Your task to perform on an android device: turn off improve location accuracy Image 0: 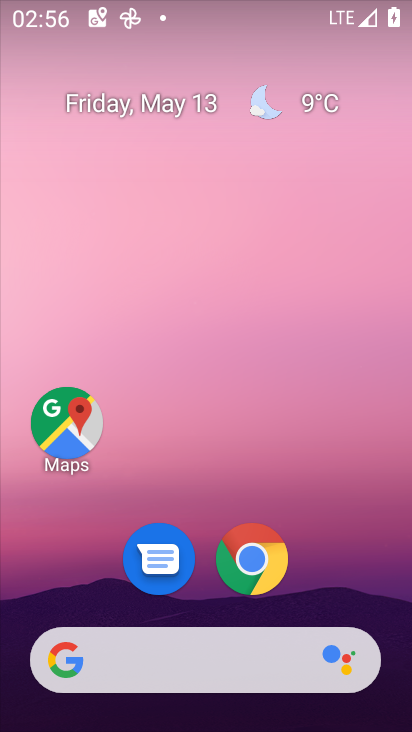
Step 0: click (384, 189)
Your task to perform on an android device: turn off improve location accuracy Image 1: 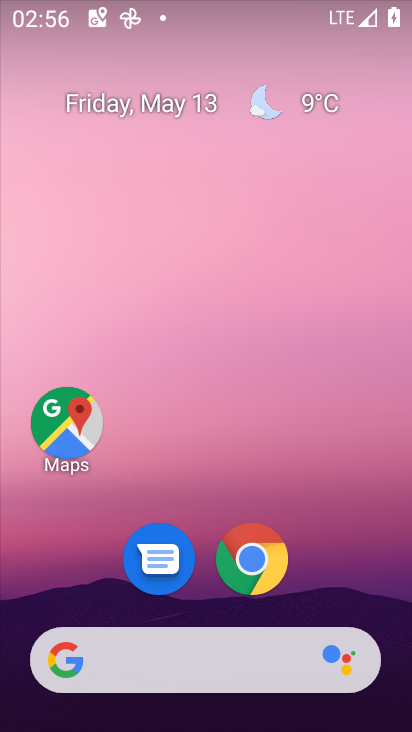
Step 1: drag from (392, 608) to (364, 99)
Your task to perform on an android device: turn off improve location accuracy Image 2: 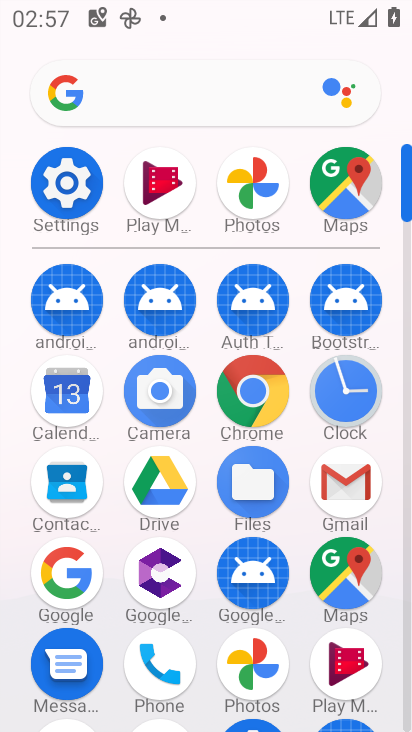
Step 2: click (85, 201)
Your task to perform on an android device: turn off improve location accuracy Image 3: 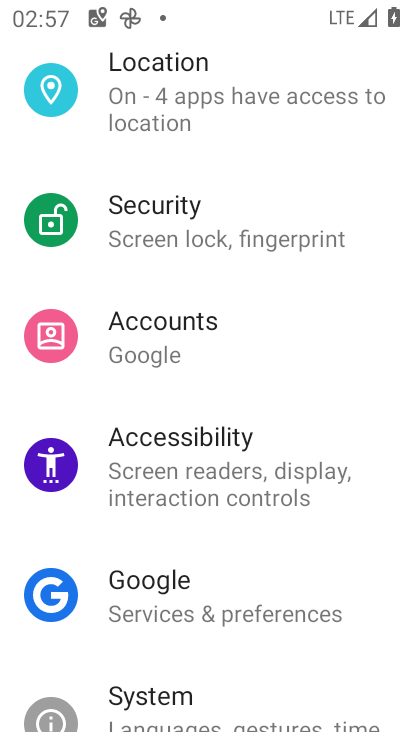
Step 3: click (189, 81)
Your task to perform on an android device: turn off improve location accuracy Image 4: 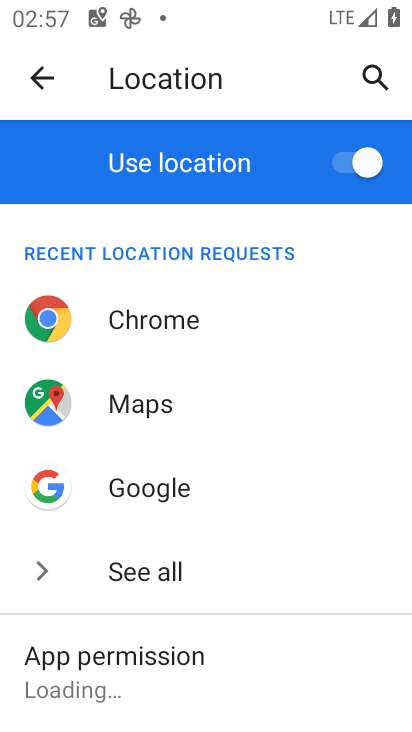
Step 4: drag from (180, 698) to (208, 466)
Your task to perform on an android device: turn off improve location accuracy Image 5: 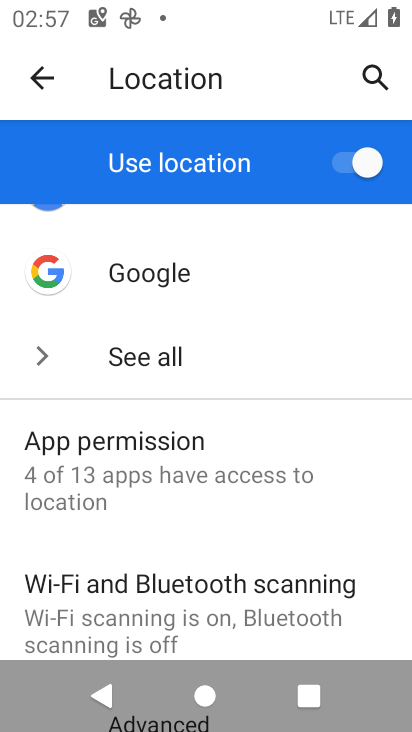
Step 5: click (145, 362)
Your task to perform on an android device: turn off improve location accuracy Image 6: 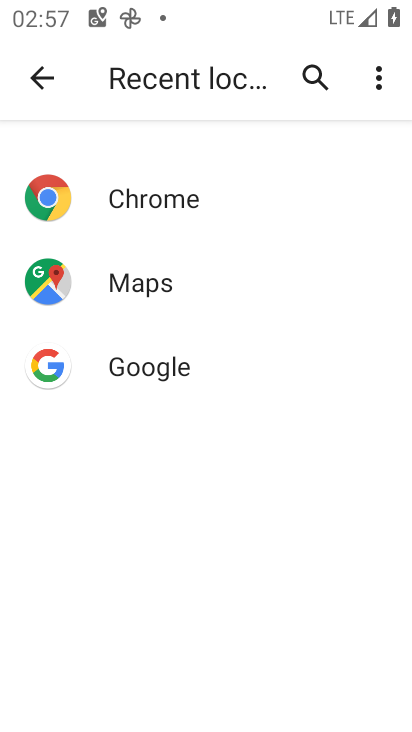
Step 6: click (35, 75)
Your task to perform on an android device: turn off improve location accuracy Image 7: 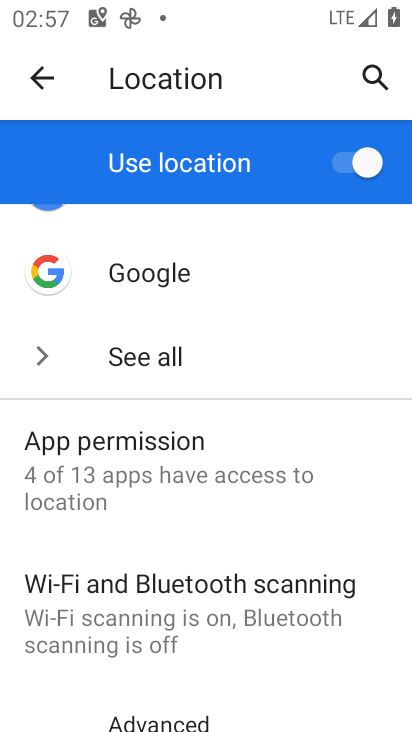
Step 7: drag from (245, 646) to (280, 360)
Your task to perform on an android device: turn off improve location accuracy Image 8: 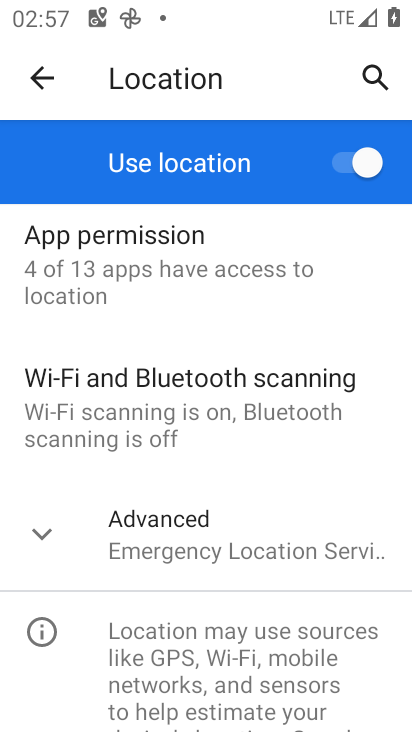
Step 8: drag from (274, 711) to (273, 499)
Your task to perform on an android device: turn off improve location accuracy Image 9: 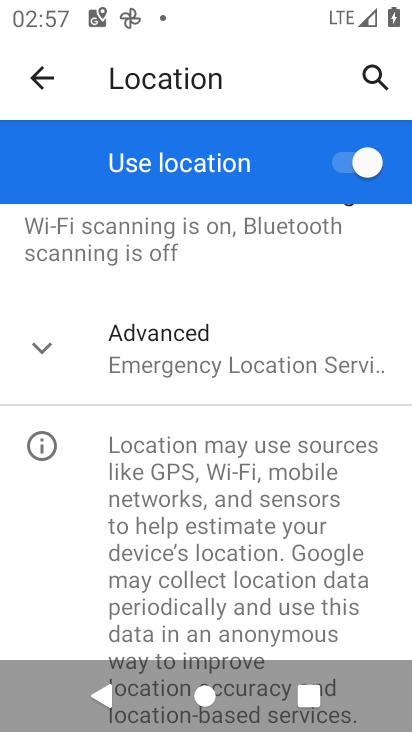
Step 9: drag from (286, 596) to (304, 340)
Your task to perform on an android device: turn off improve location accuracy Image 10: 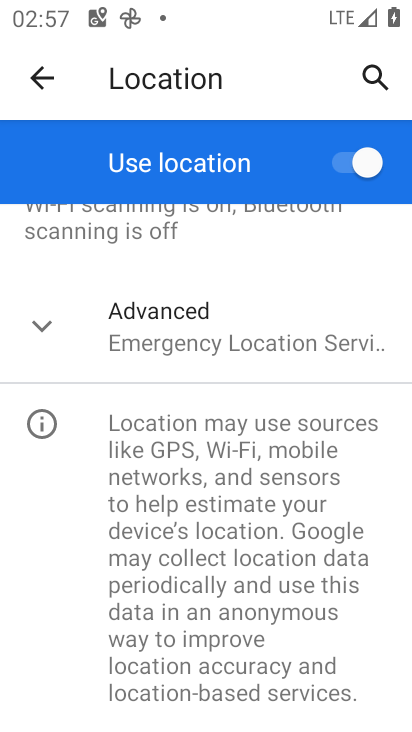
Step 10: click (32, 323)
Your task to perform on an android device: turn off improve location accuracy Image 11: 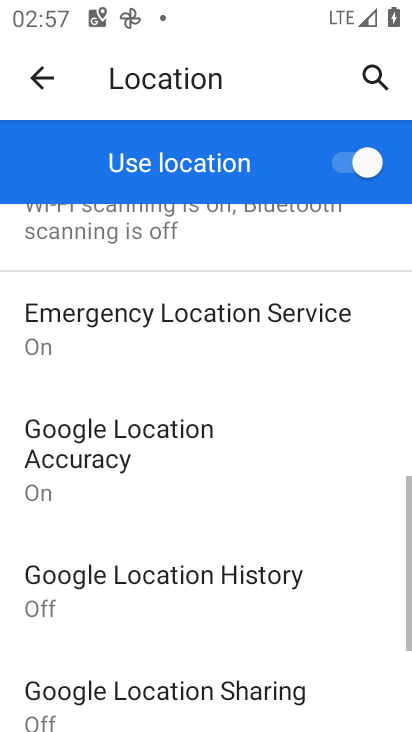
Step 11: drag from (294, 631) to (319, 479)
Your task to perform on an android device: turn off improve location accuracy Image 12: 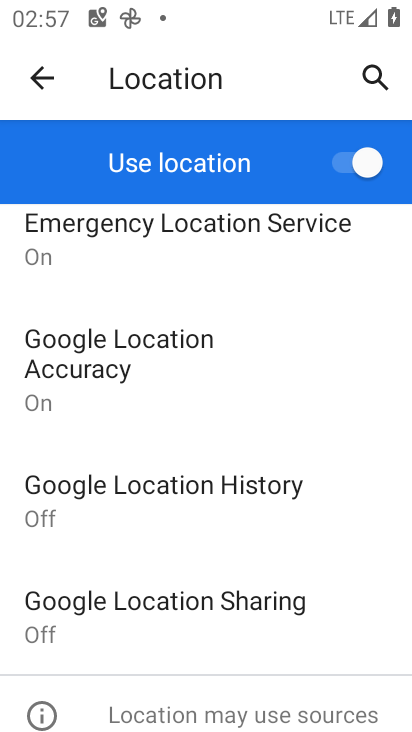
Step 12: click (76, 369)
Your task to perform on an android device: turn off improve location accuracy Image 13: 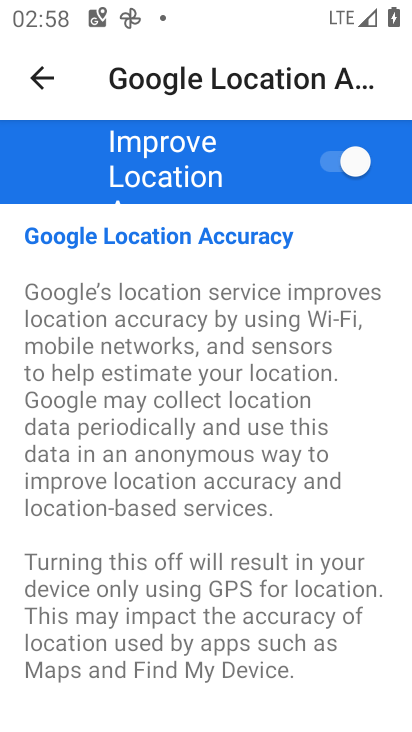
Step 13: click (320, 160)
Your task to perform on an android device: turn off improve location accuracy Image 14: 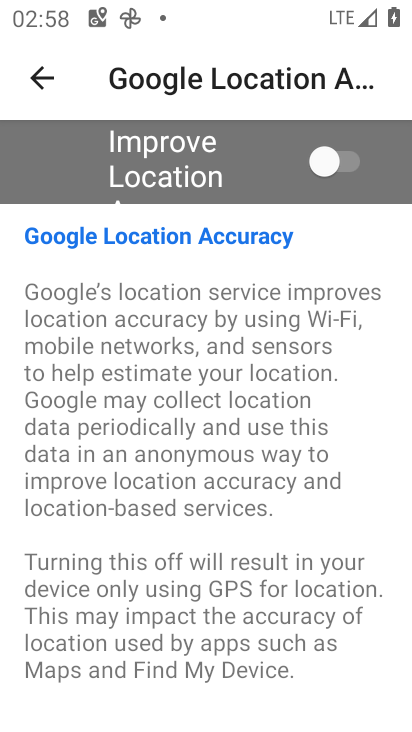
Step 14: task complete